Your task to perform on an android device: Go to location settings Image 0: 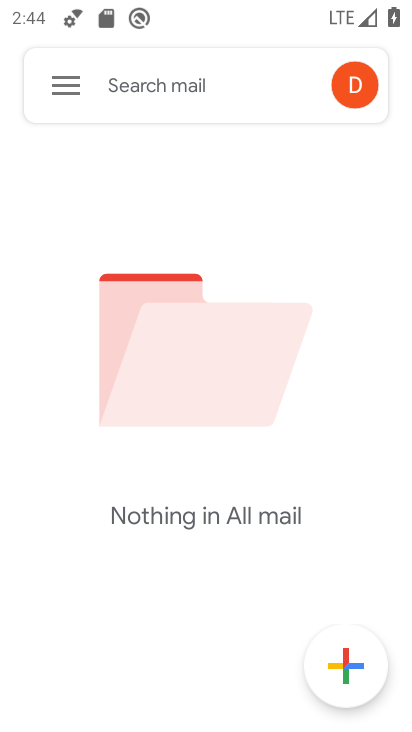
Step 0: press home button
Your task to perform on an android device: Go to location settings Image 1: 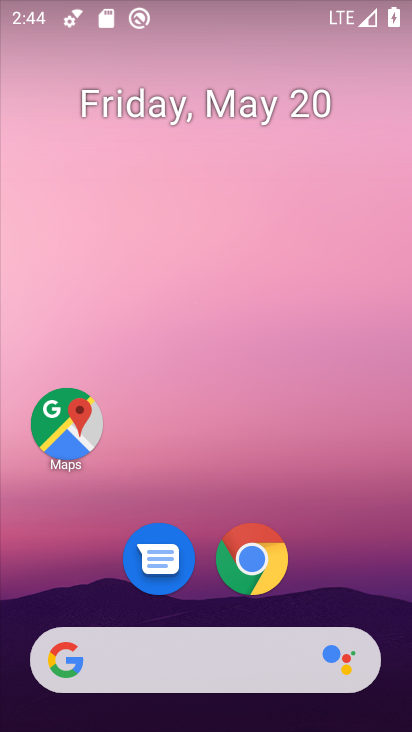
Step 1: drag from (245, 475) to (265, 80)
Your task to perform on an android device: Go to location settings Image 2: 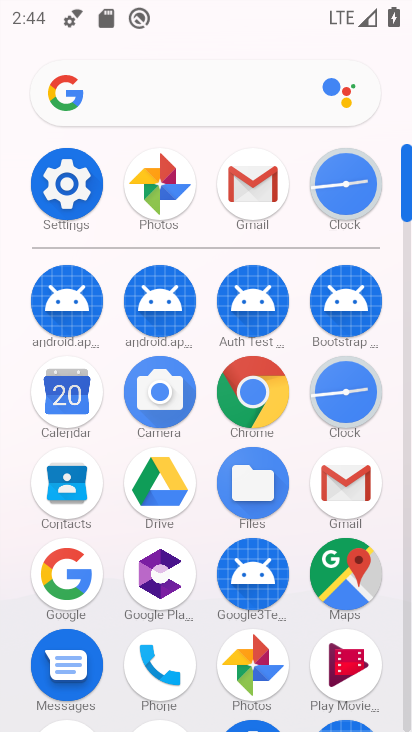
Step 2: click (79, 183)
Your task to perform on an android device: Go to location settings Image 3: 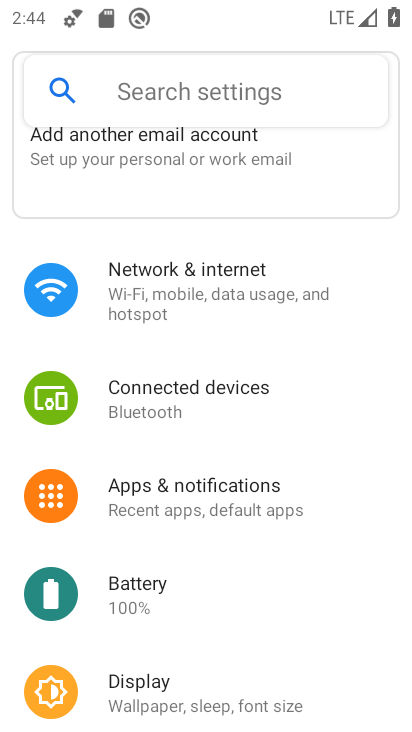
Step 3: drag from (232, 595) to (255, 138)
Your task to perform on an android device: Go to location settings Image 4: 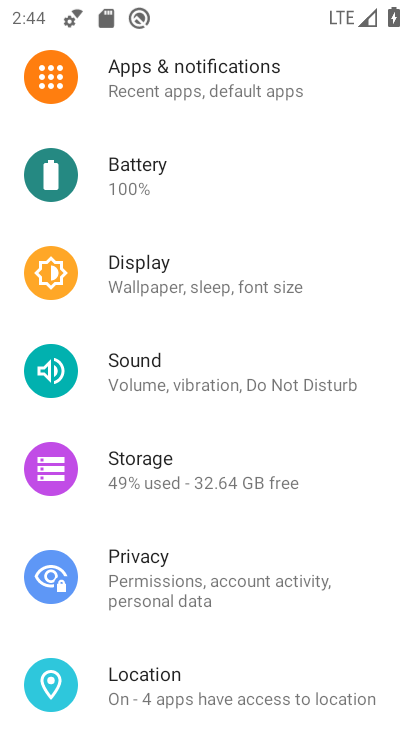
Step 4: click (222, 683)
Your task to perform on an android device: Go to location settings Image 5: 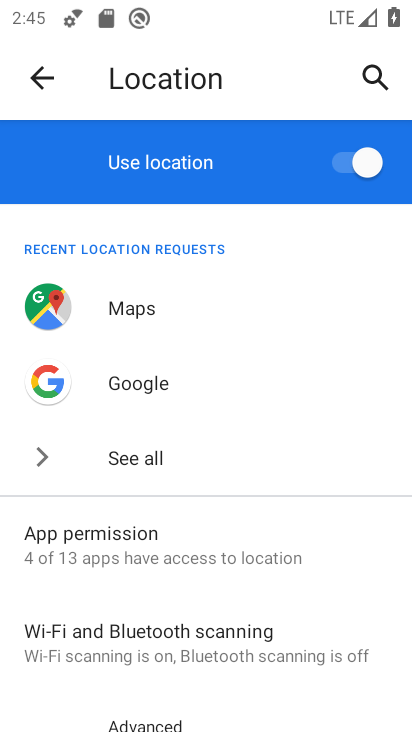
Step 5: task complete